Your task to perform on an android device: clear history in the chrome app Image 0: 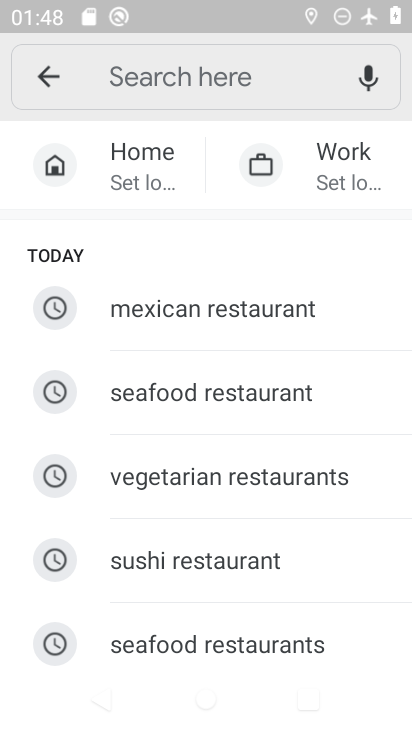
Step 0: press home button
Your task to perform on an android device: clear history in the chrome app Image 1: 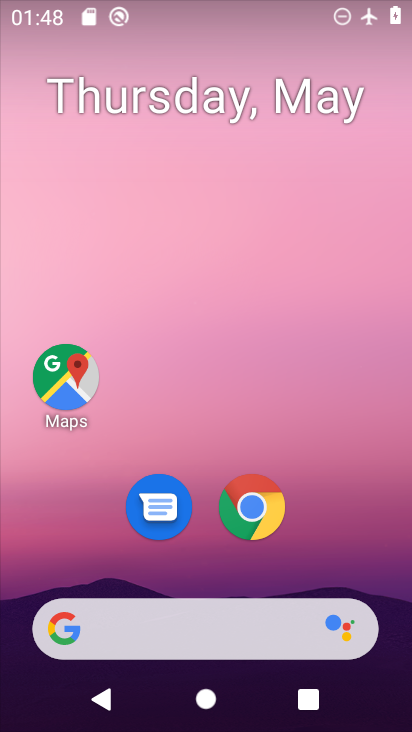
Step 1: click (271, 544)
Your task to perform on an android device: clear history in the chrome app Image 2: 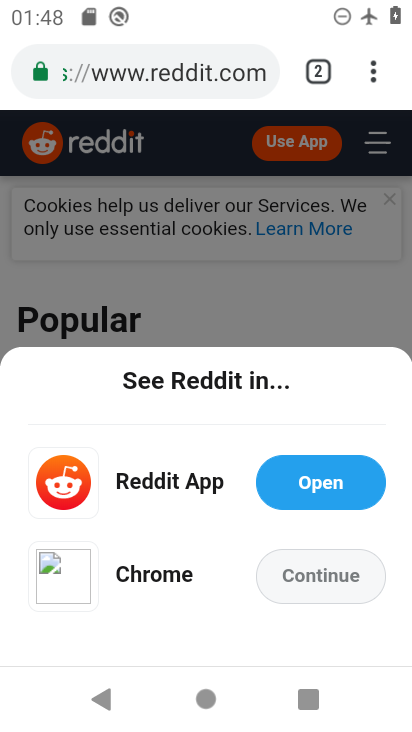
Step 2: click (379, 70)
Your task to perform on an android device: clear history in the chrome app Image 3: 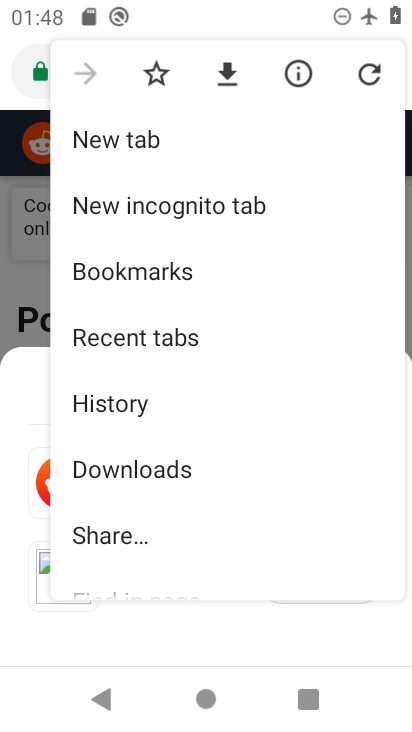
Step 3: click (184, 417)
Your task to perform on an android device: clear history in the chrome app Image 4: 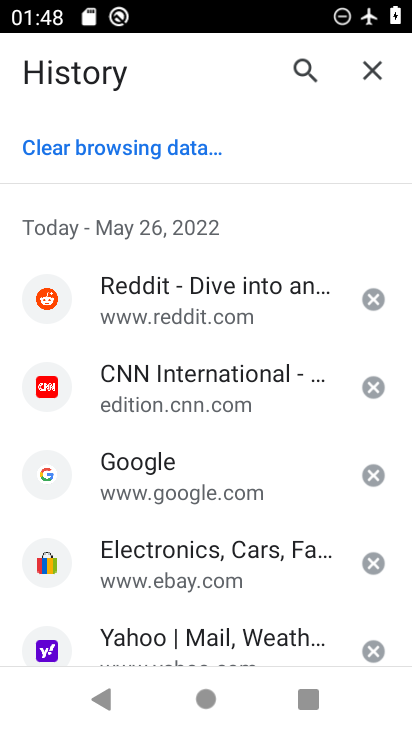
Step 4: click (106, 169)
Your task to perform on an android device: clear history in the chrome app Image 5: 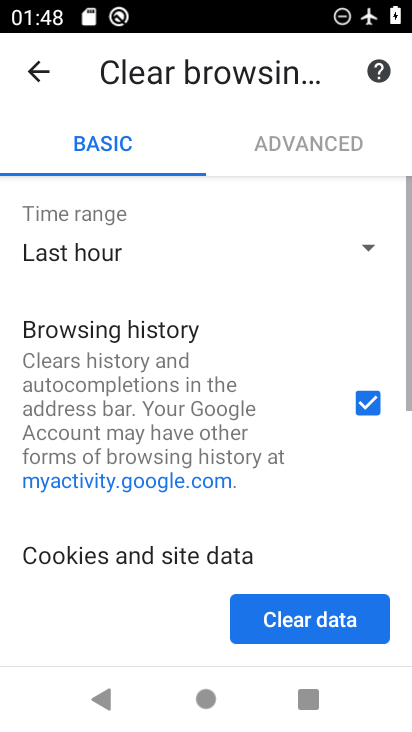
Step 5: click (328, 624)
Your task to perform on an android device: clear history in the chrome app Image 6: 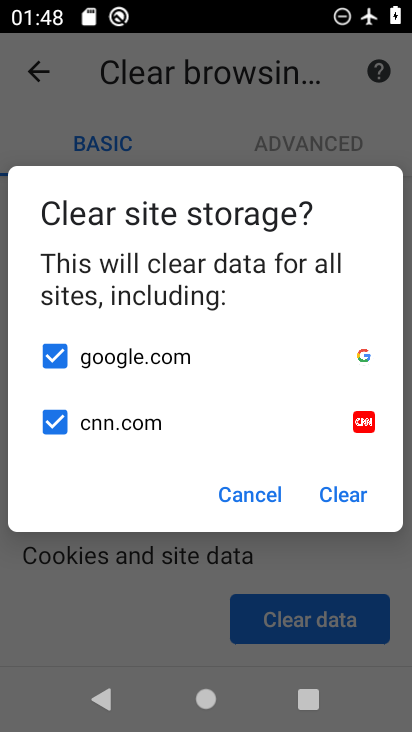
Step 6: task complete